Your task to perform on an android device: turn notification dots off Image 0: 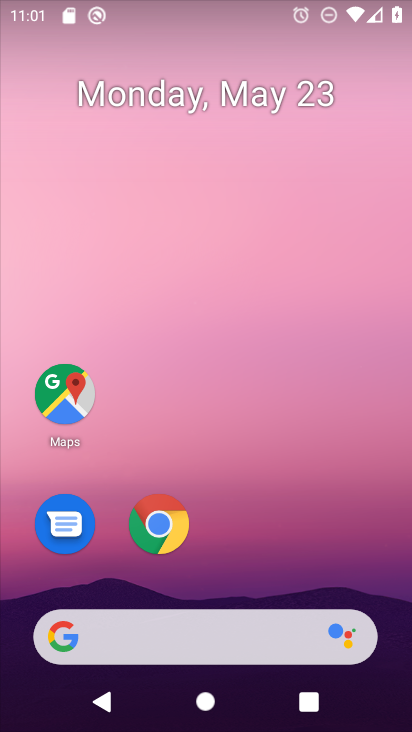
Step 0: drag from (234, 586) to (261, 136)
Your task to perform on an android device: turn notification dots off Image 1: 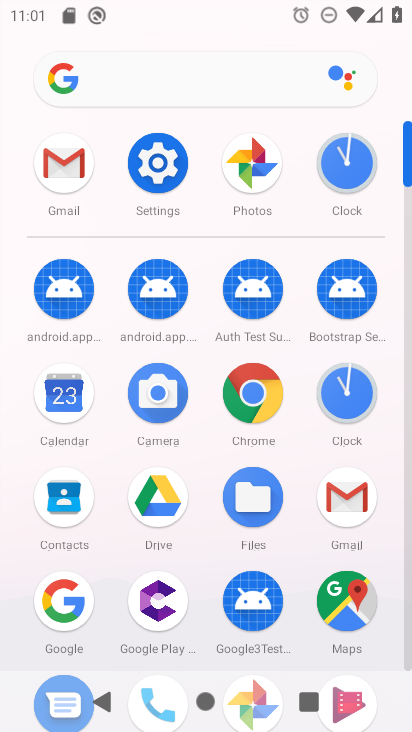
Step 1: click (171, 153)
Your task to perform on an android device: turn notification dots off Image 2: 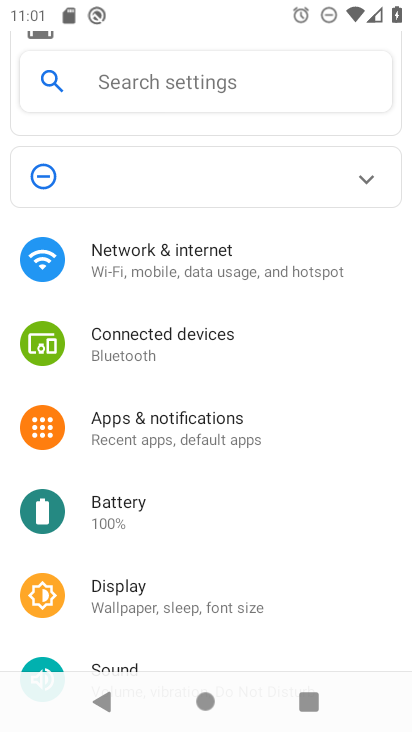
Step 2: click (239, 428)
Your task to perform on an android device: turn notification dots off Image 3: 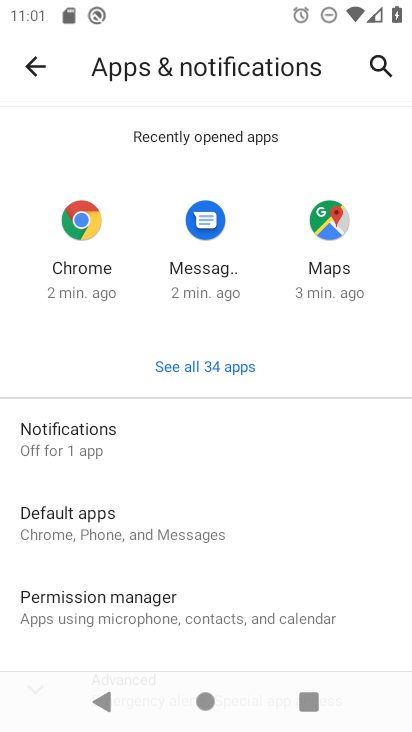
Step 3: click (120, 444)
Your task to perform on an android device: turn notification dots off Image 4: 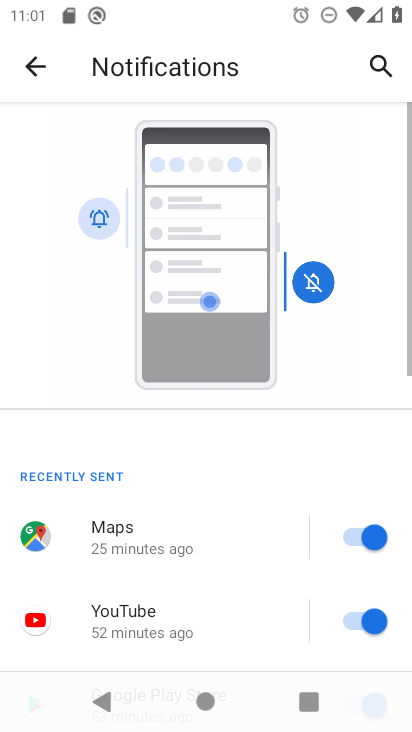
Step 4: drag from (166, 600) to (188, 240)
Your task to perform on an android device: turn notification dots off Image 5: 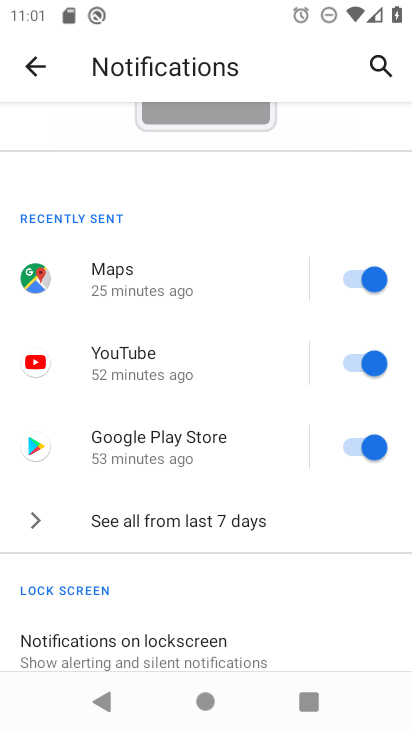
Step 5: drag from (215, 574) to (232, 285)
Your task to perform on an android device: turn notification dots off Image 6: 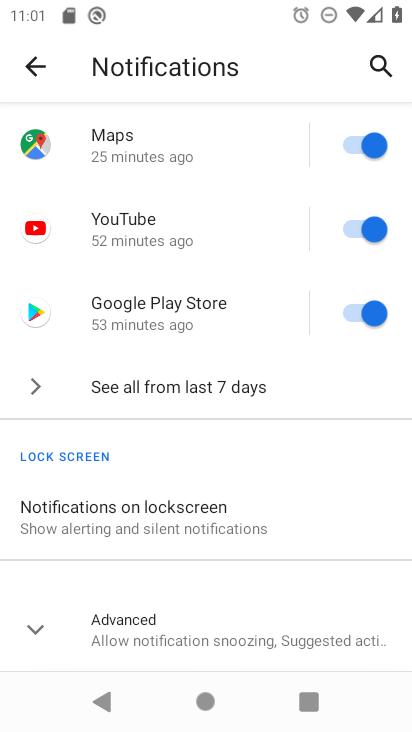
Step 6: click (239, 629)
Your task to perform on an android device: turn notification dots off Image 7: 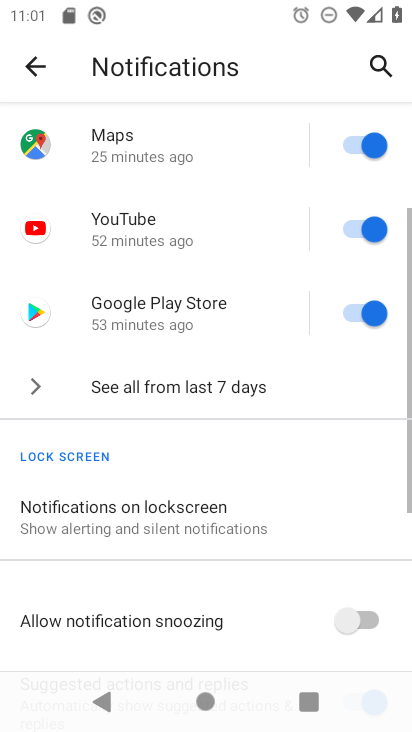
Step 7: drag from (246, 387) to (250, 230)
Your task to perform on an android device: turn notification dots off Image 8: 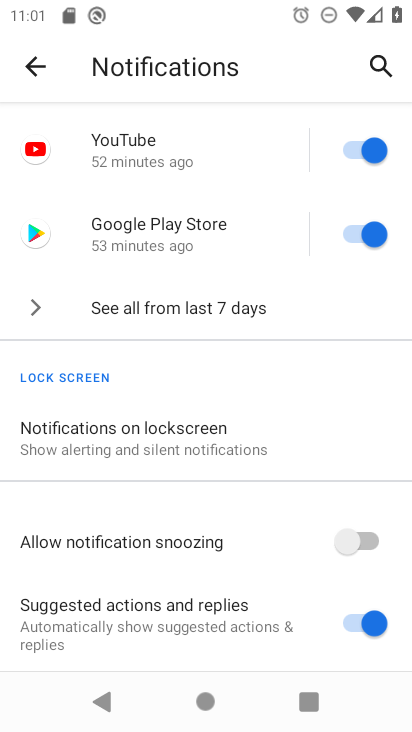
Step 8: drag from (339, 620) to (302, 307)
Your task to perform on an android device: turn notification dots off Image 9: 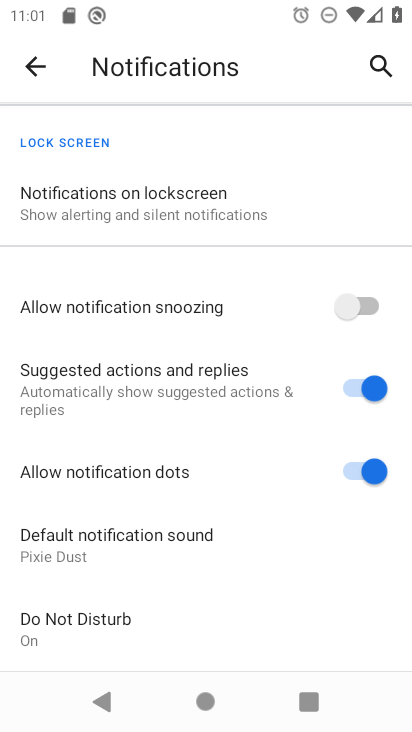
Step 9: click (355, 478)
Your task to perform on an android device: turn notification dots off Image 10: 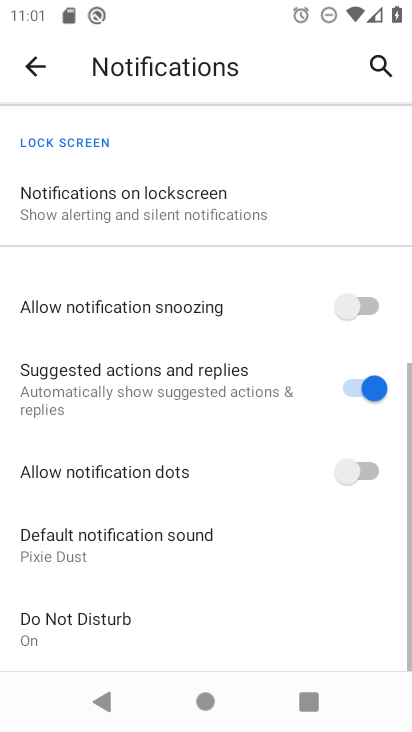
Step 10: task complete